Your task to perform on an android device: change notifications settings Image 0: 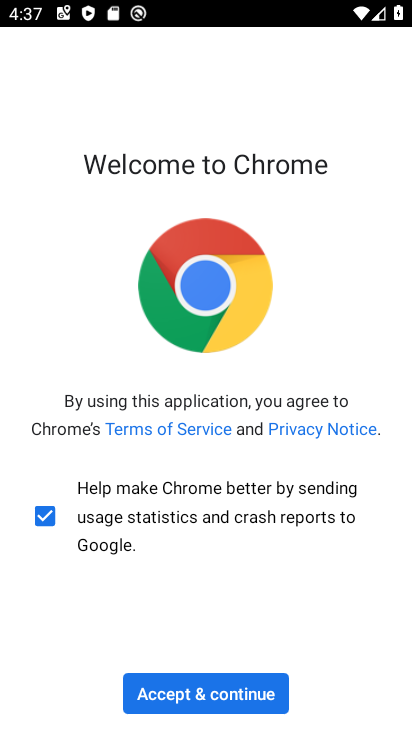
Step 0: press home button
Your task to perform on an android device: change notifications settings Image 1: 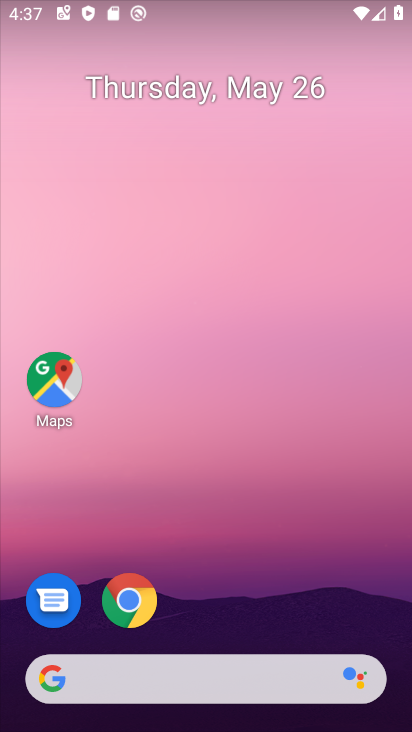
Step 1: drag from (206, 578) to (278, 117)
Your task to perform on an android device: change notifications settings Image 2: 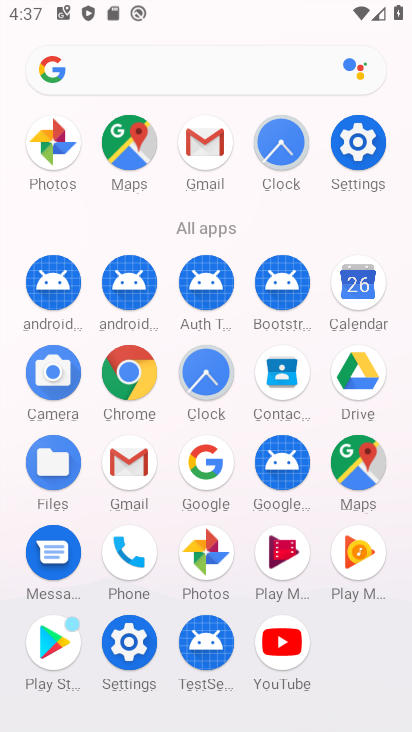
Step 2: click (363, 170)
Your task to perform on an android device: change notifications settings Image 3: 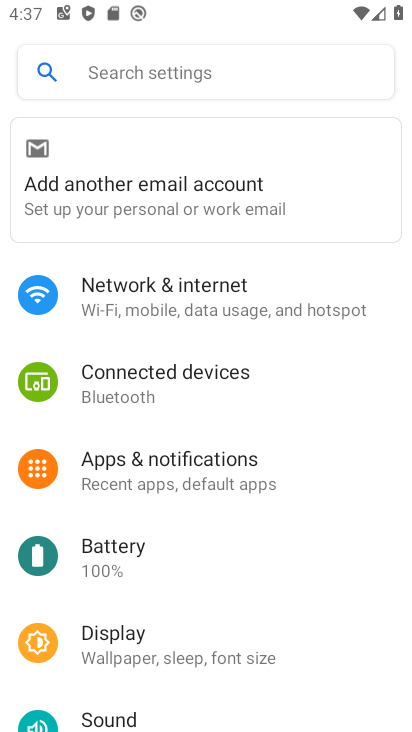
Step 3: click (176, 480)
Your task to perform on an android device: change notifications settings Image 4: 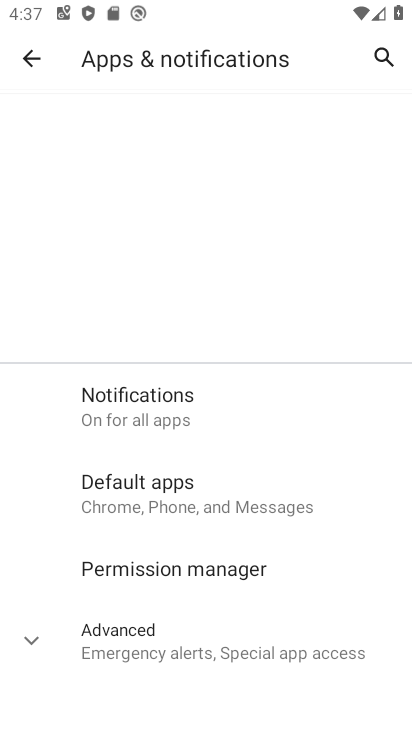
Step 4: click (154, 413)
Your task to perform on an android device: change notifications settings Image 5: 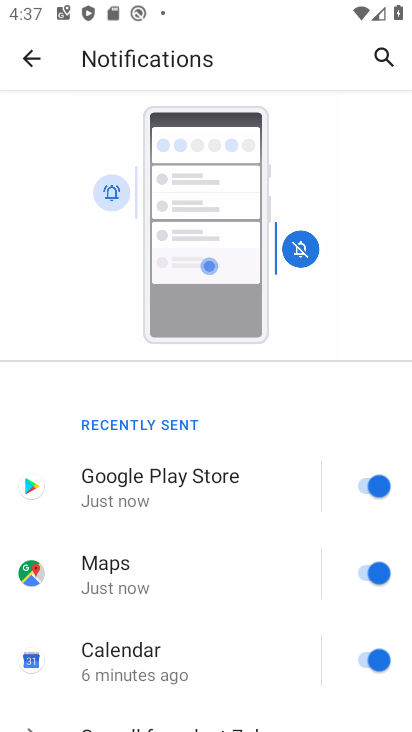
Step 5: drag from (207, 677) to (238, 320)
Your task to perform on an android device: change notifications settings Image 6: 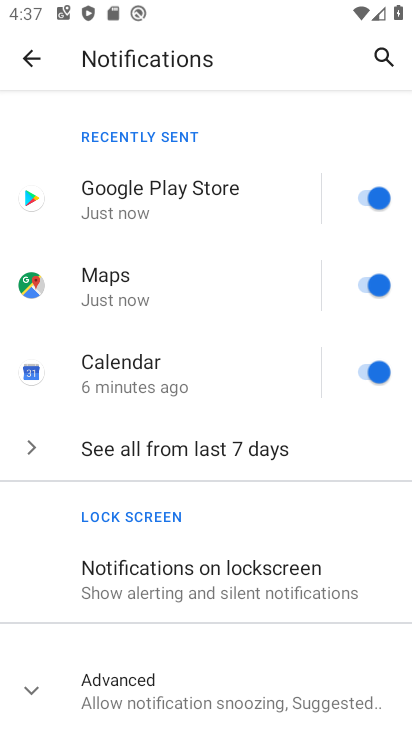
Step 6: click (195, 453)
Your task to perform on an android device: change notifications settings Image 7: 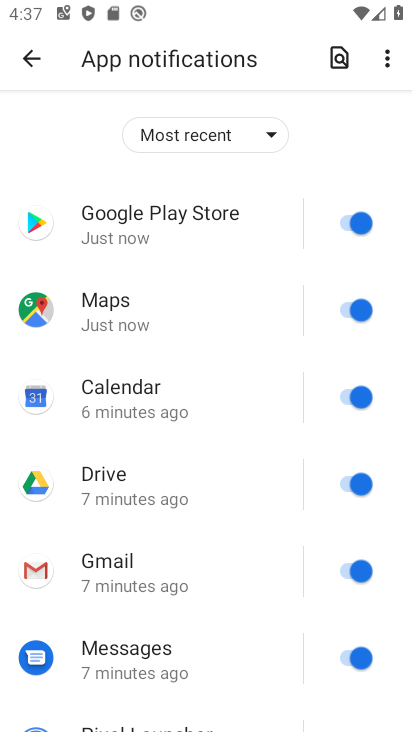
Step 7: click (347, 232)
Your task to perform on an android device: change notifications settings Image 8: 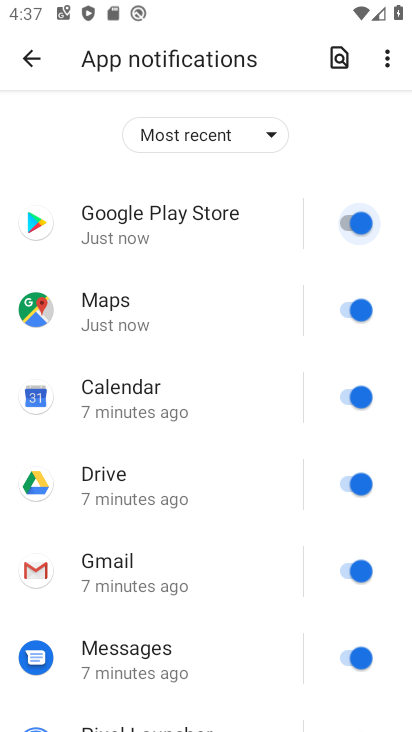
Step 8: click (334, 289)
Your task to perform on an android device: change notifications settings Image 9: 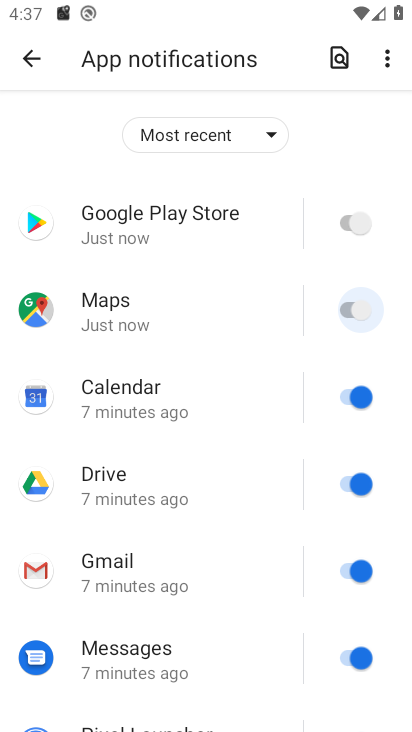
Step 9: click (341, 413)
Your task to perform on an android device: change notifications settings Image 10: 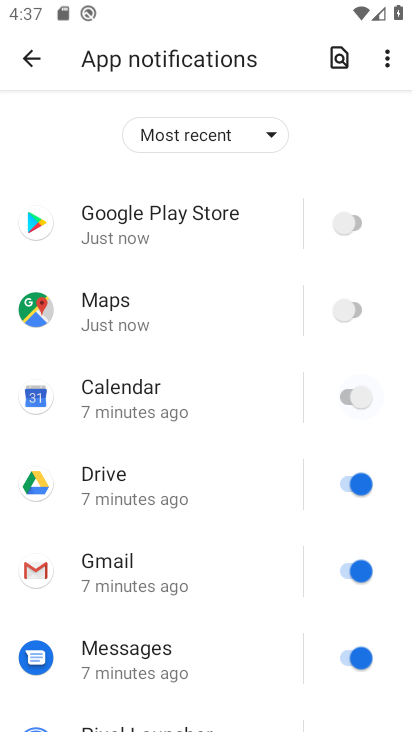
Step 10: click (350, 486)
Your task to perform on an android device: change notifications settings Image 11: 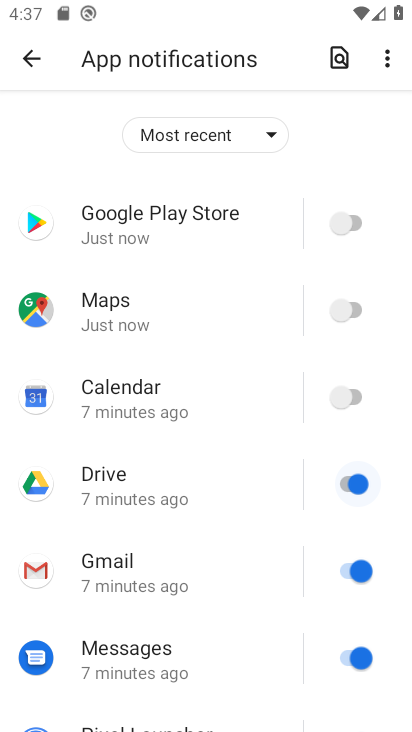
Step 11: click (345, 586)
Your task to perform on an android device: change notifications settings Image 12: 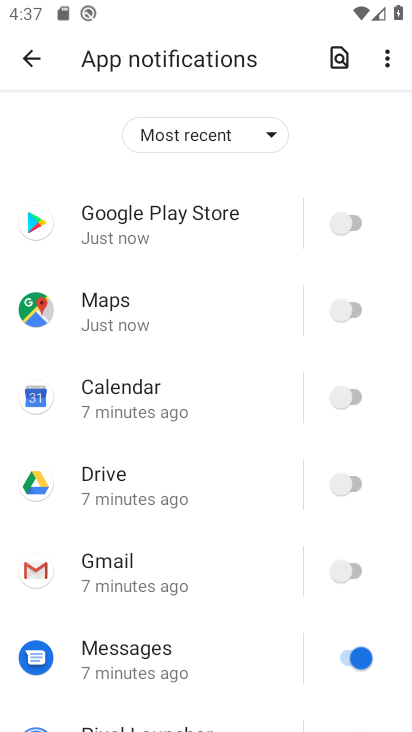
Step 12: drag from (300, 593) to (317, 302)
Your task to perform on an android device: change notifications settings Image 13: 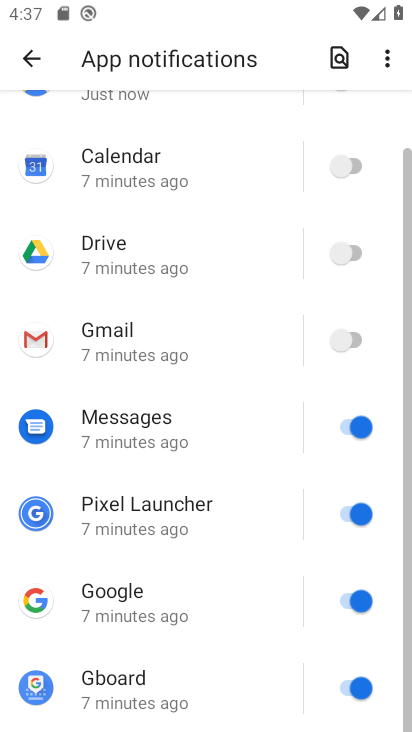
Step 13: click (351, 430)
Your task to perform on an android device: change notifications settings Image 14: 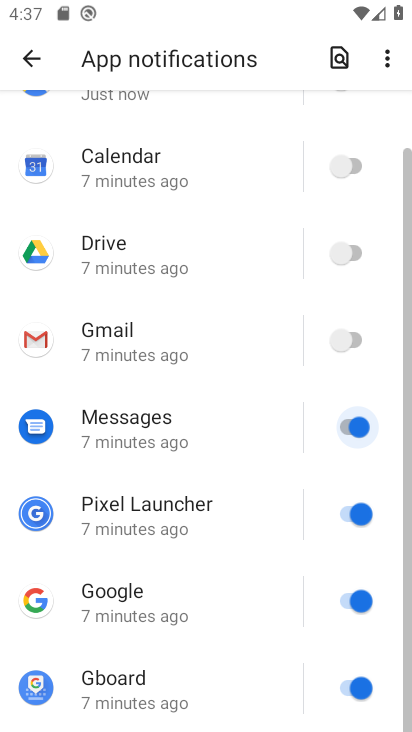
Step 14: click (343, 513)
Your task to perform on an android device: change notifications settings Image 15: 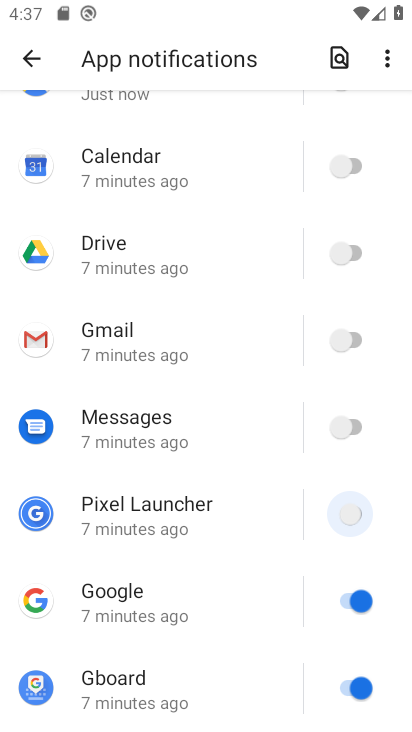
Step 15: click (342, 603)
Your task to perform on an android device: change notifications settings Image 16: 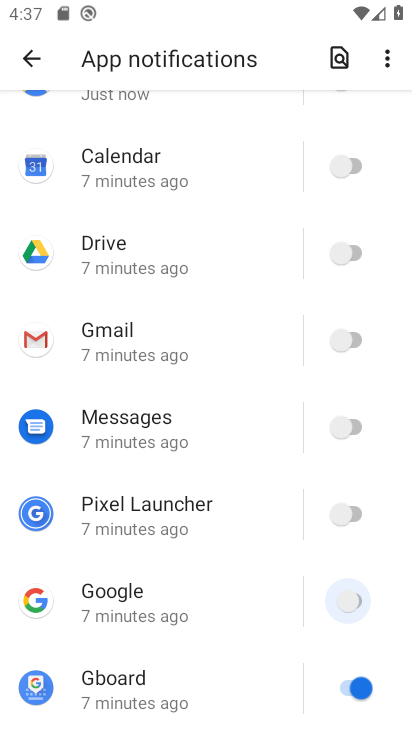
Step 16: click (345, 681)
Your task to perform on an android device: change notifications settings Image 17: 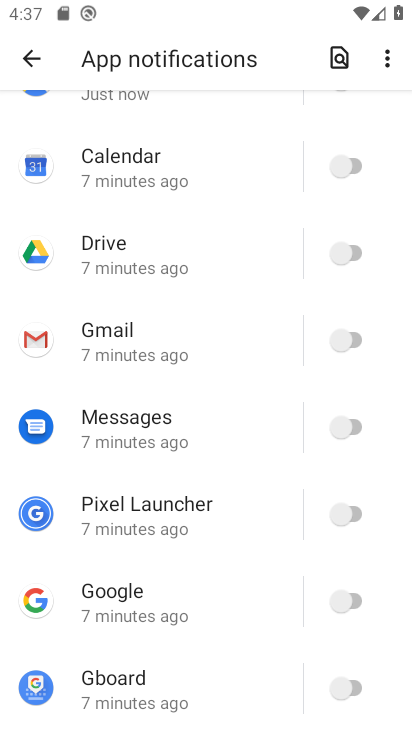
Step 17: task complete